Your task to perform on an android device: open chrome and create a bookmark for the current page Image 0: 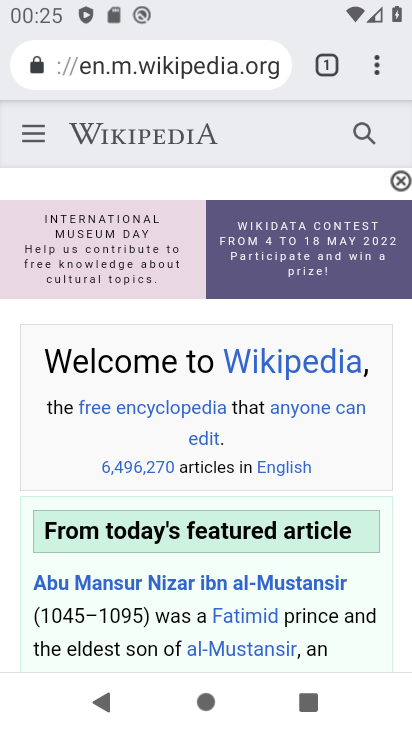
Step 0: press home button
Your task to perform on an android device: open chrome and create a bookmark for the current page Image 1: 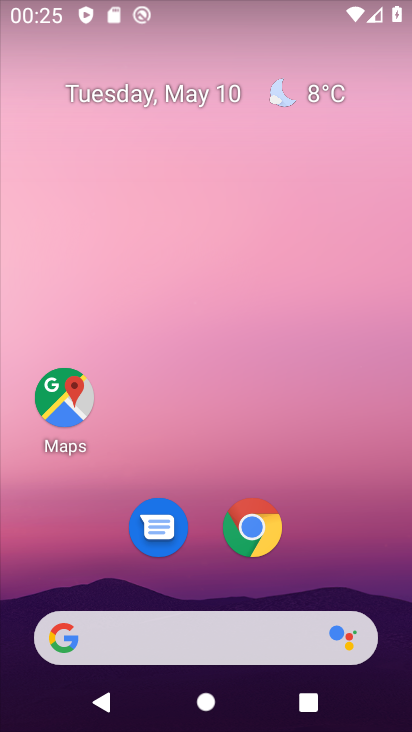
Step 1: click (248, 533)
Your task to perform on an android device: open chrome and create a bookmark for the current page Image 2: 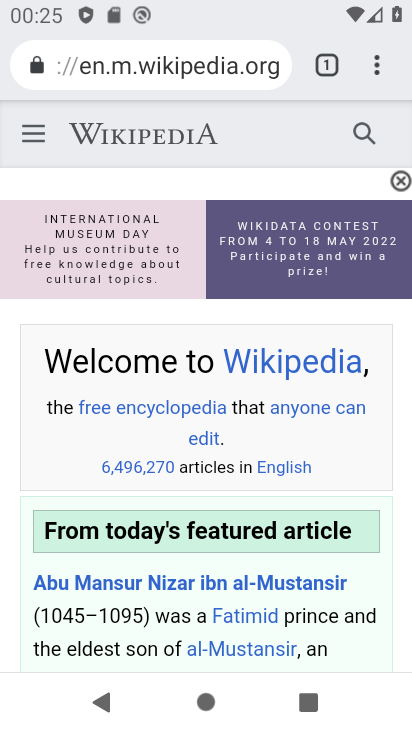
Step 2: click (374, 68)
Your task to perform on an android device: open chrome and create a bookmark for the current page Image 3: 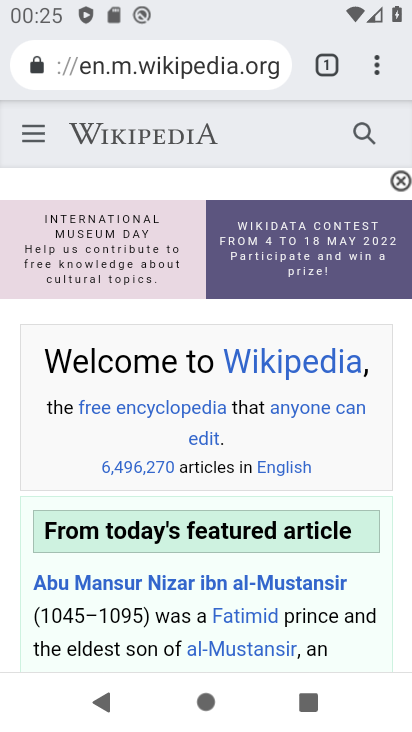
Step 3: task complete